Your task to perform on an android device: open chrome and create a bookmark for the current page Image 0: 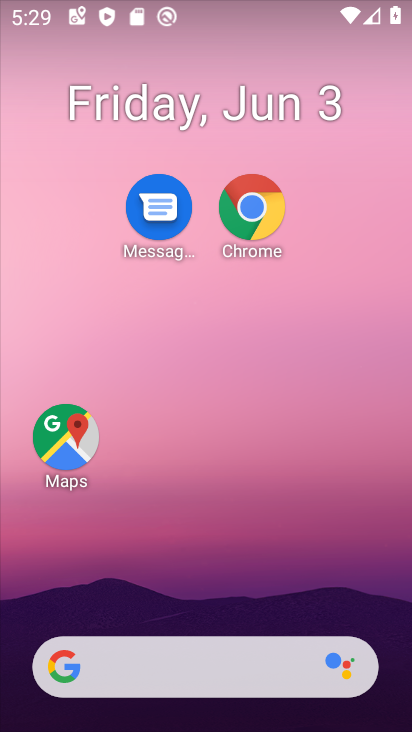
Step 0: click (246, 242)
Your task to perform on an android device: open chrome and create a bookmark for the current page Image 1: 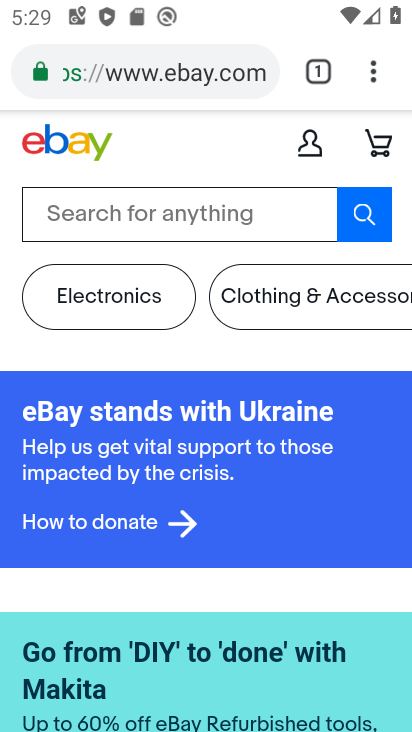
Step 1: click (381, 80)
Your task to perform on an android device: open chrome and create a bookmark for the current page Image 2: 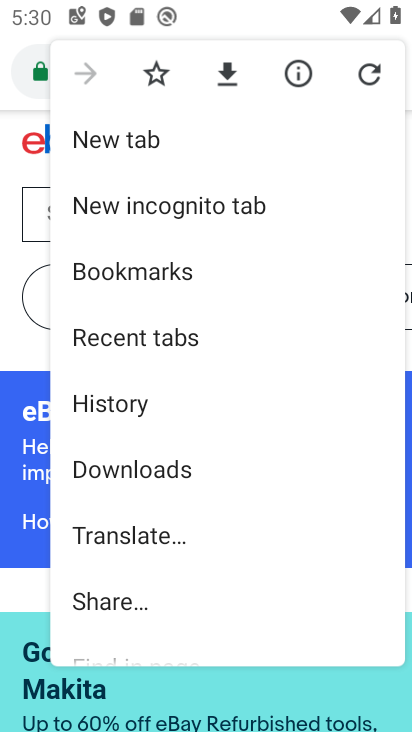
Step 2: click (167, 77)
Your task to perform on an android device: open chrome and create a bookmark for the current page Image 3: 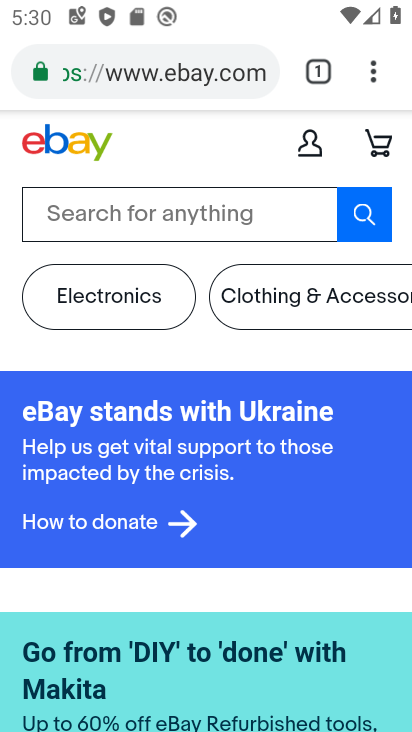
Step 3: task complete